Your task to perform on an android device: move a message to another label in the gmail app Image 0: 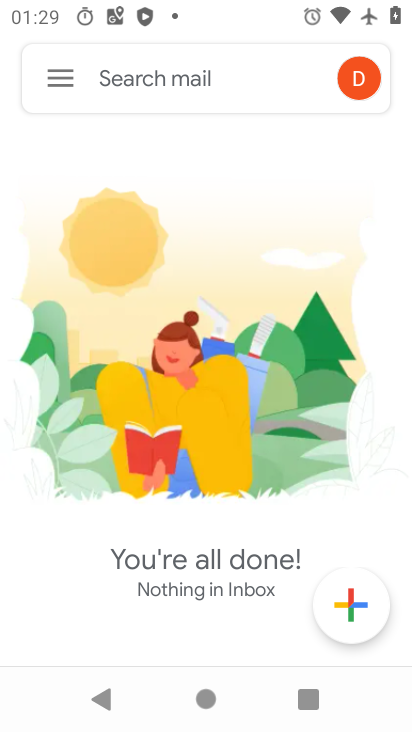
Step 0: press home button
Your task to perform on an android device: move a message to another label in the gmail app Image 1: 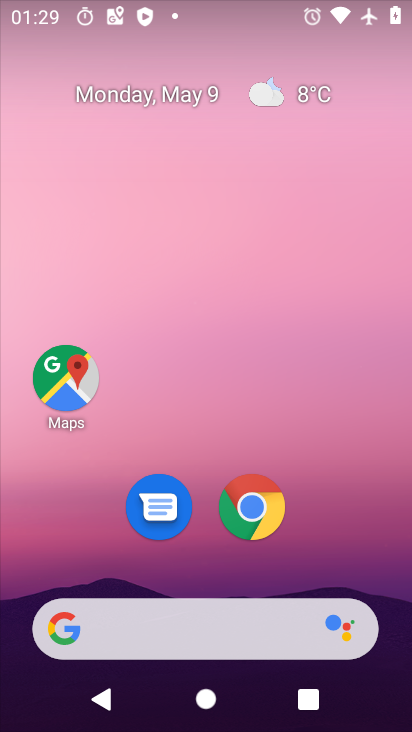
Step 1: drag from (228, 725) to (205, 127)
Your task to perform on an android device: move a message to another label in the gmail app Image 2: 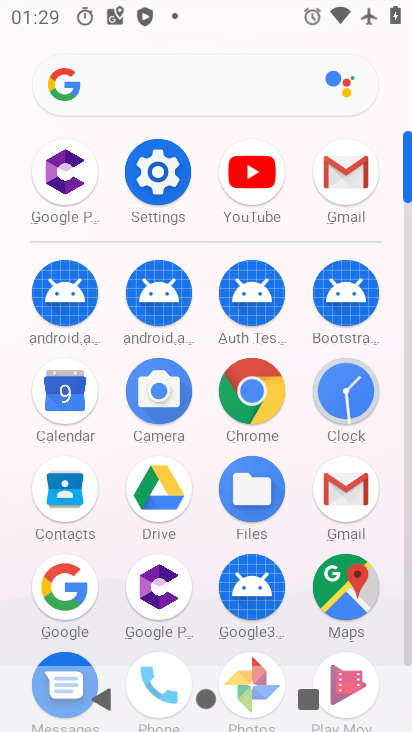
Step 2: click (355, 173)
Your task to perform on an android device: move a message to another label in the gmail app Image 3: 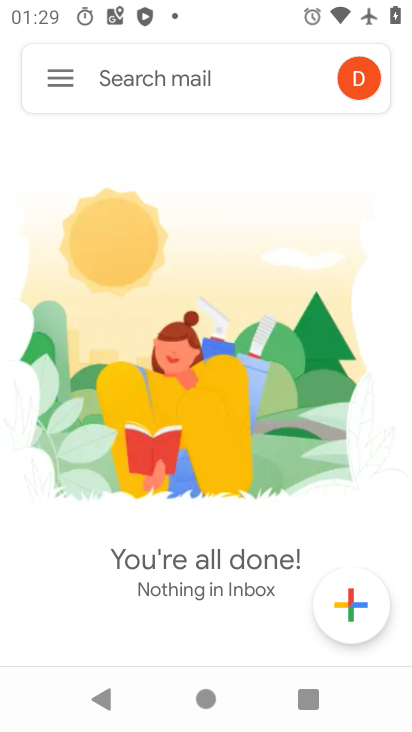
Step 3: click (58, 77)
Your task to perform on an android device: move a message to another label in the gmail app Image 4: 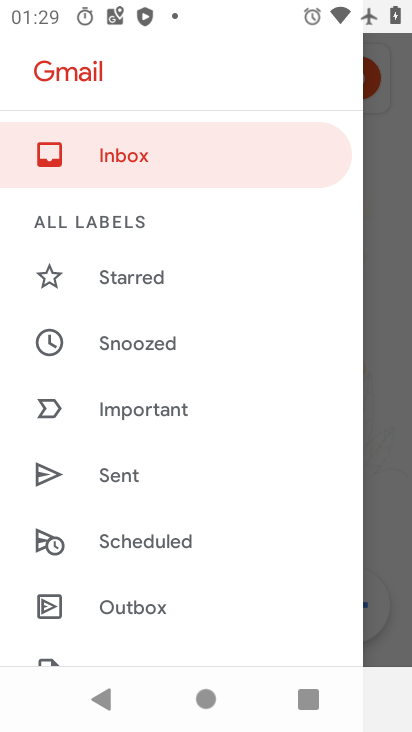
Step 4: drag from (159, 612) to (162, 407)
Your task to perform on an android device: move a message to another label in the gmail app Image 5: 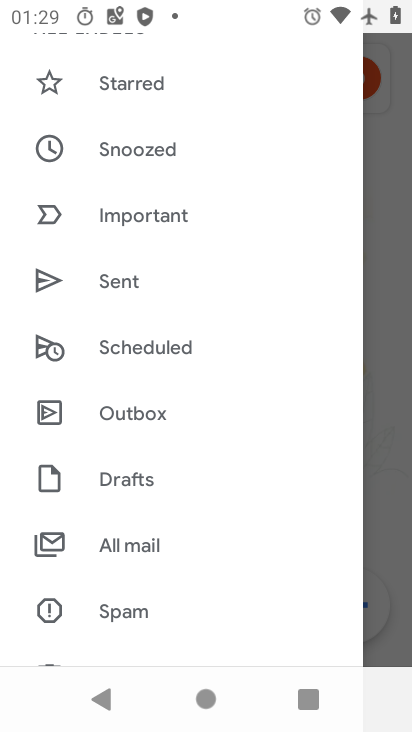
Step 5: drag from (170, 617) to (161, 353)
Your task to perform on an android device: move a message to another label in the gmail app Image 6: 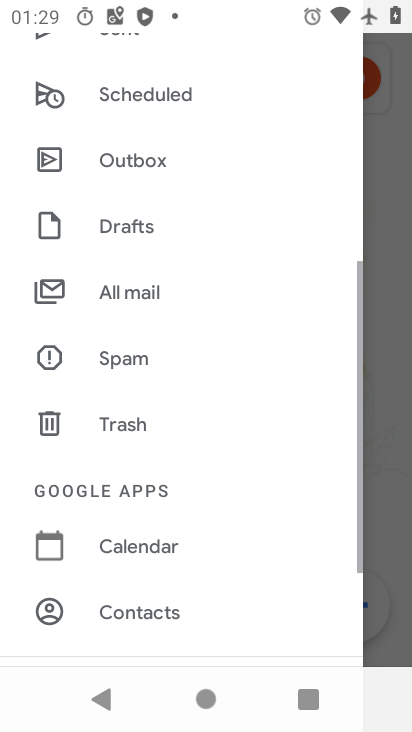
Step 6: click (385, 188)
Your task to perform on an android device: move a message to another label in the gmail app Image 7: 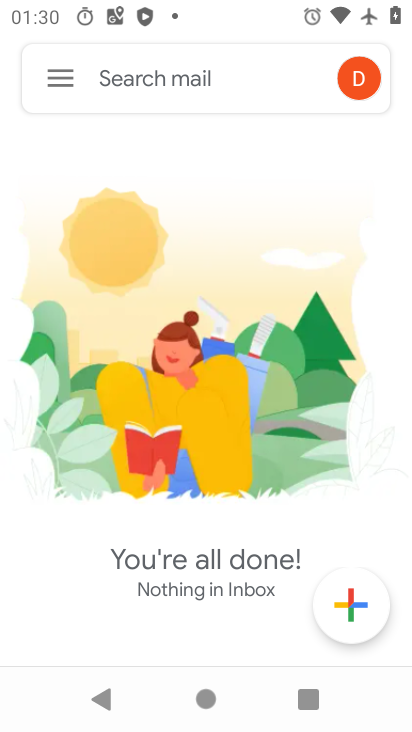
Step 7: task complete